Your task to perform on an android device: Open settings Image 0: 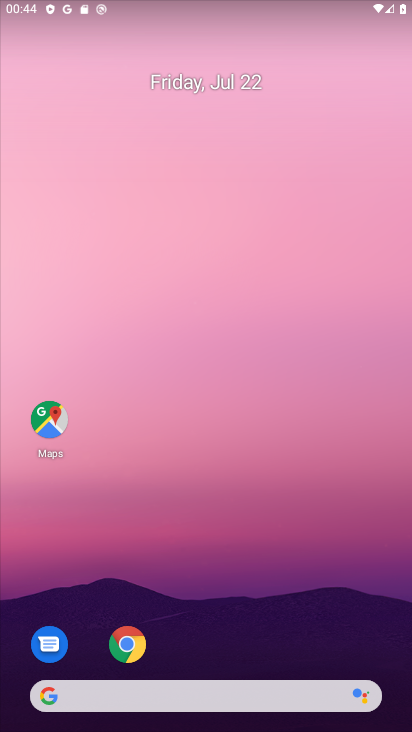
Step 0: drag from (136, 726) to (191, 138)
Your task to perform on an android device: Open settings Image 1: 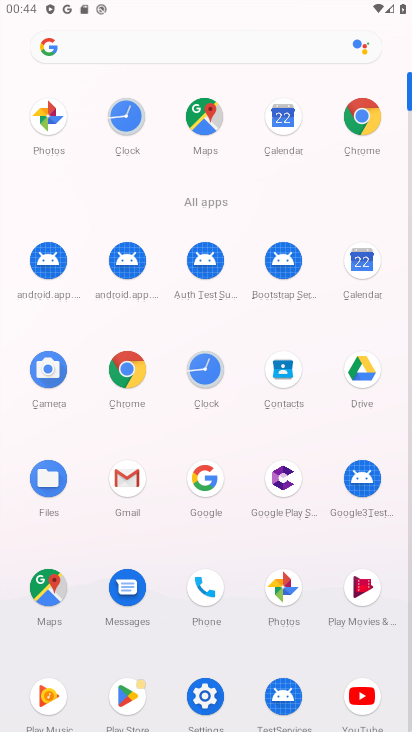
Step 1: click (202, 691)
Your task to perform on an android device: Open settings Image 2: 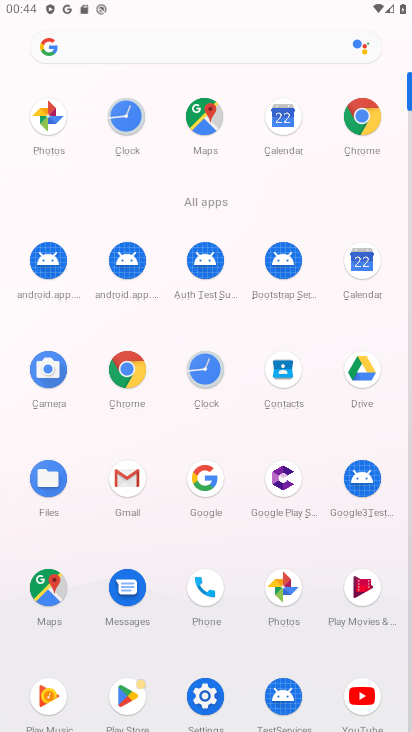
Step 2: click (202, 691)
Your task to perform on an android device: Open settings Image 3: 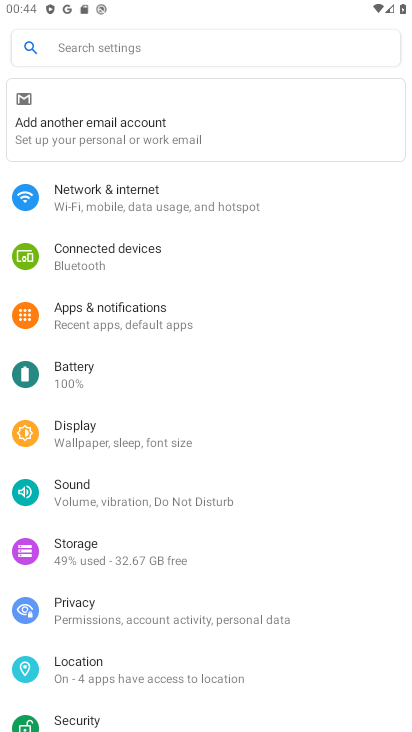
Step 3: task complete